Your task to perform on an android device: Open wifi settings Image 0: 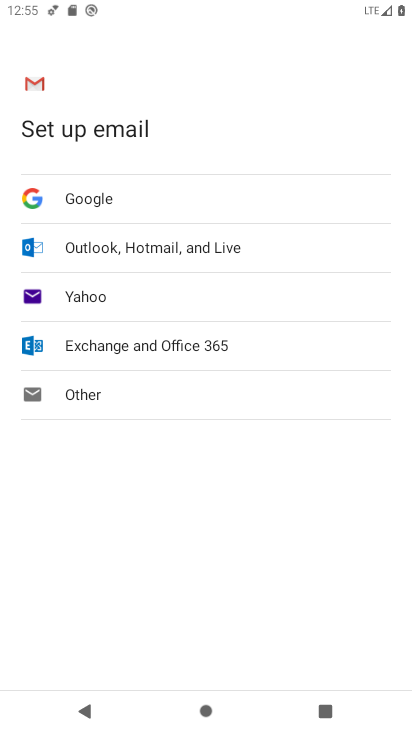
Step 0: press home button
Your task to perform on an android device: Open wifi settings Image 1: 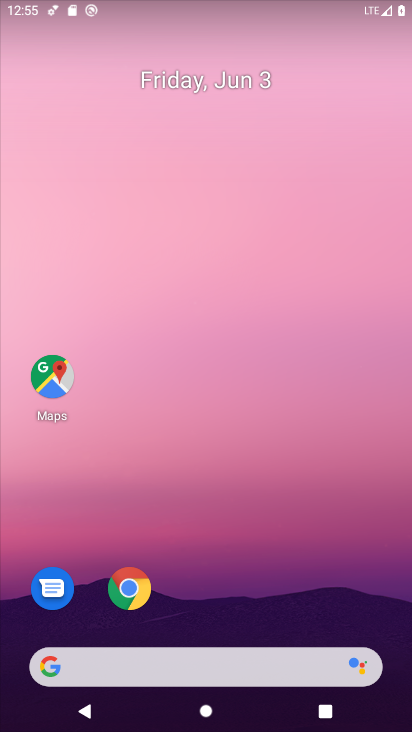
Step 1: drag from (280, 622) to (262, 213)
Your task to perform on an android device: Open wifi settings Image 2: 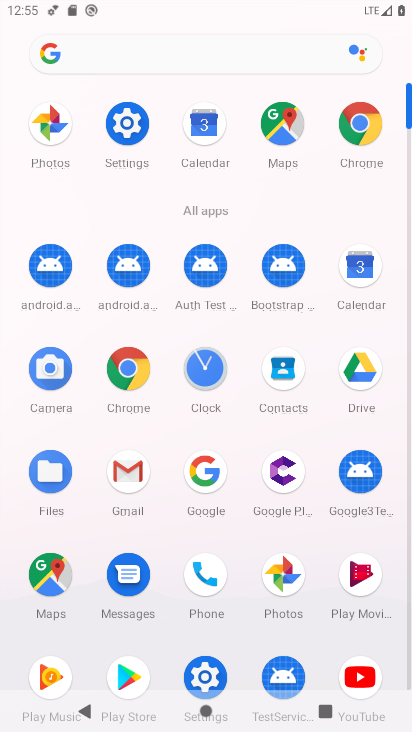
Step 2: click (131, 112)
Your task to perform on an android device: Open wifi settings Image 3: 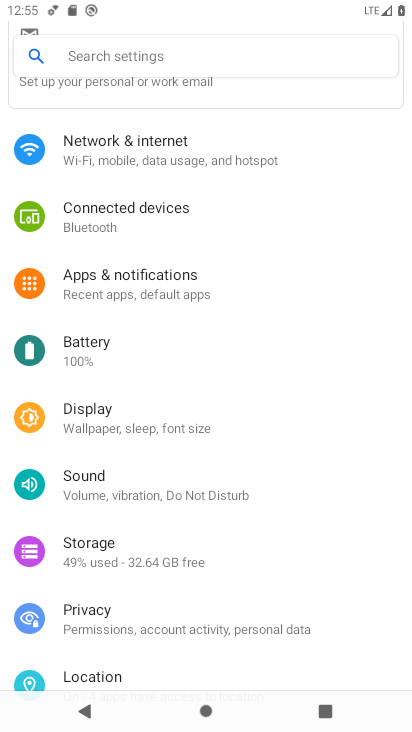
Step 3: click (185, 138)
Your task to perform on an android device: Open wifi settings Image 4: 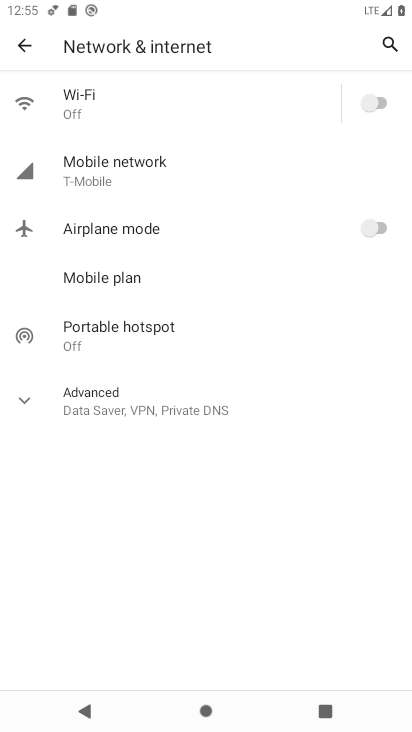
Step 4: click (355, 118)
Your task to perform on an android device: Open wifi settings Image 5: 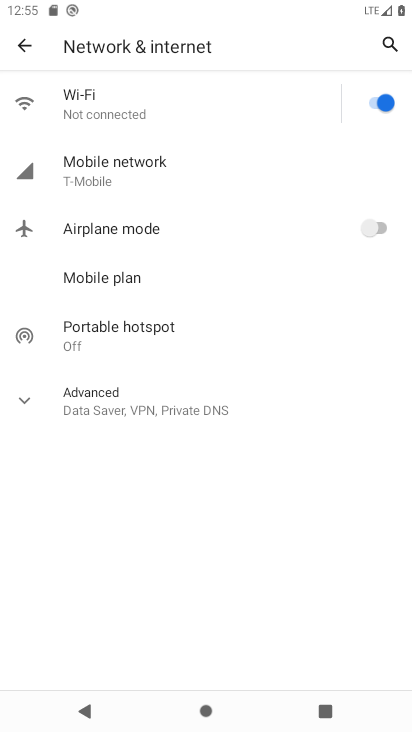
Step 5: click (315, 114)
Your task to perform on an android device: Open wifi settings Image 6: 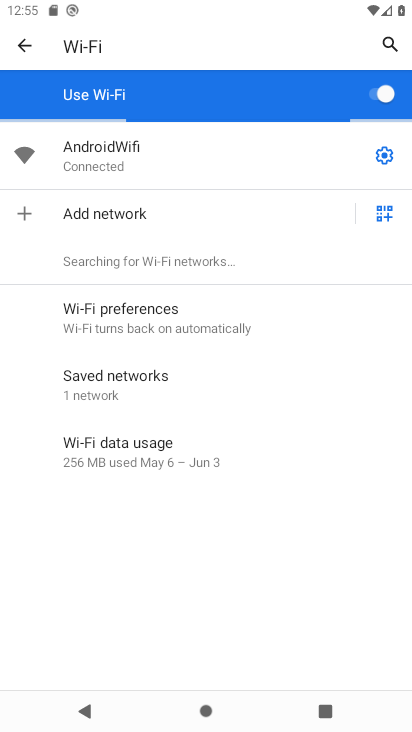
Step 6: task complete